Your task to perform on an android device: Open CNN.com Image 0: 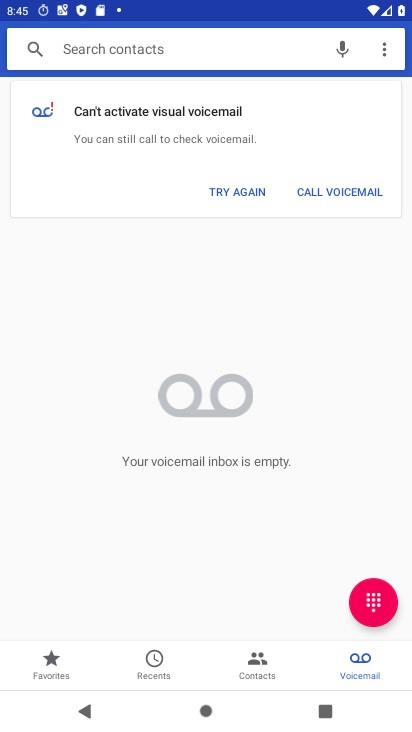
Step 0: press home button
Your task to perform on an android device: Open CNN.com Image 1: 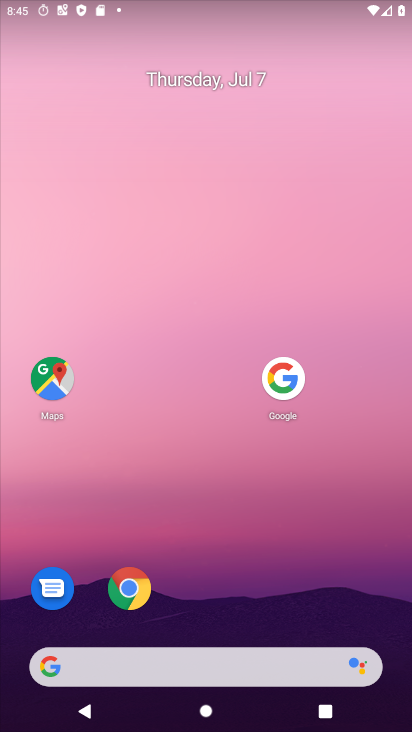
Step 1: click (139, 588)
Your task to perform on an android device: Open CNN.com Image 2: 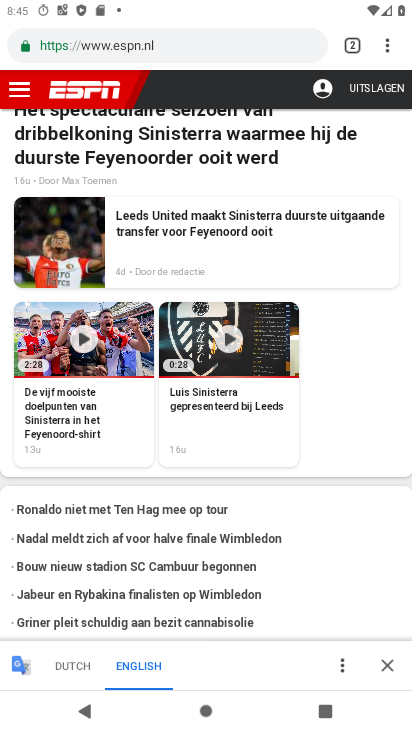
Step 2: drag from (381, 51) to (225, 85)
Your task to perform on an android device: Open CNN.com Image 3: 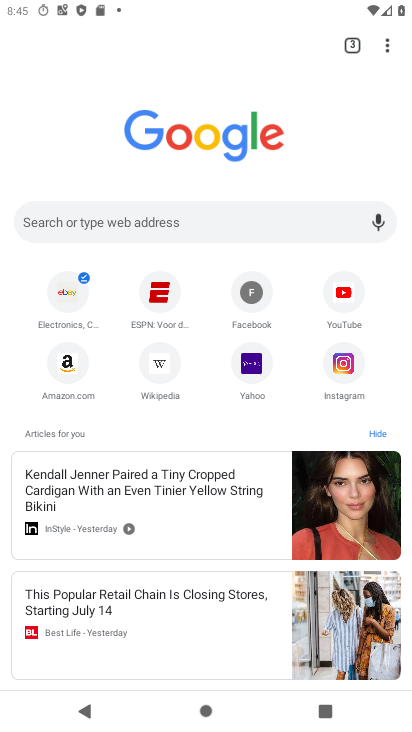
Step 3: click (130, 212)
Your task to perform on an android device: Open CNN.com Image 4: 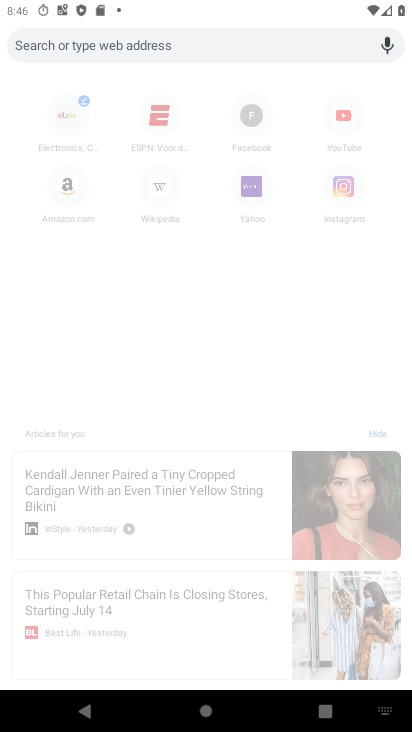
Step 4: type "cnn.com"
Your task to perform on an android device: Open CNN.com Image 5: 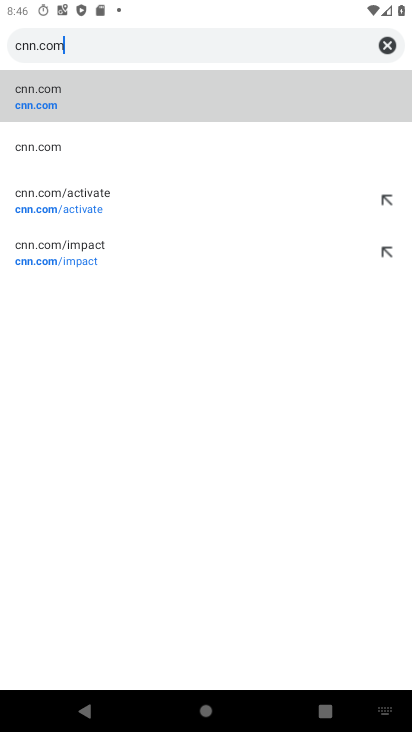
Step 5: click (68, 93)
Your task to perform on an android device: Open CNN.com Image 6: 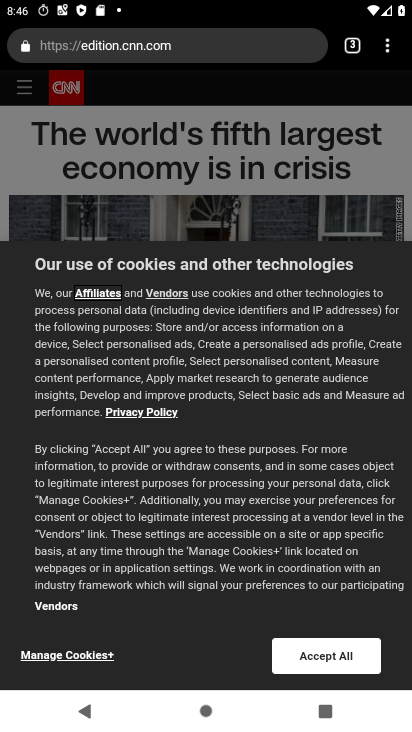
Step 6: click (334, 659)
Your task to perform on an android device: Open CNN.com Image 7: 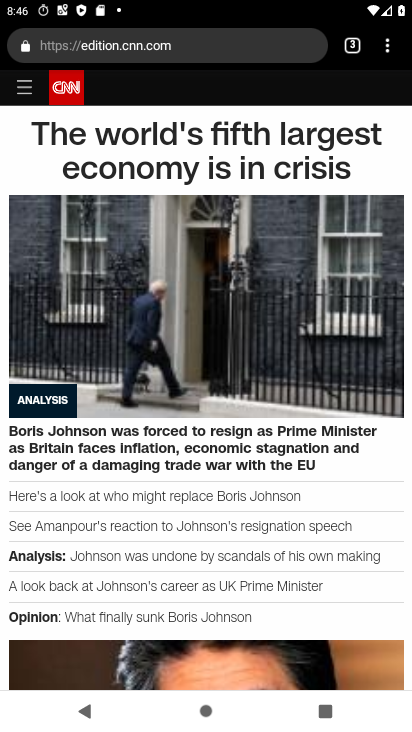
Step 7: task complete